Your task to perform on an android device: Open Wikipedia Image 0: 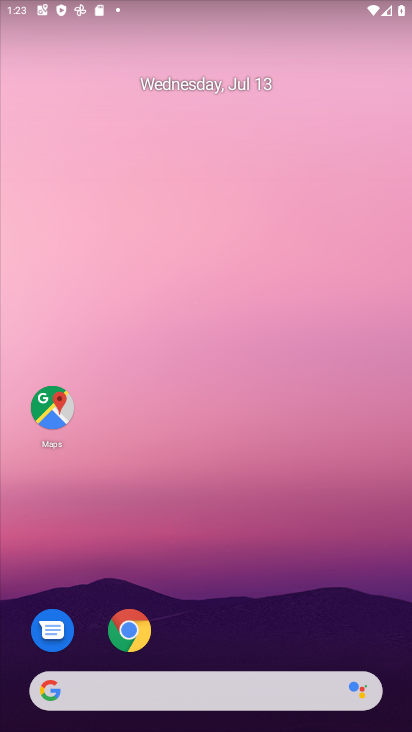
Step 0: drag from (393, 659) to (317, 45)
Your task to perform on an android device: Open Wikipedia Image 1: 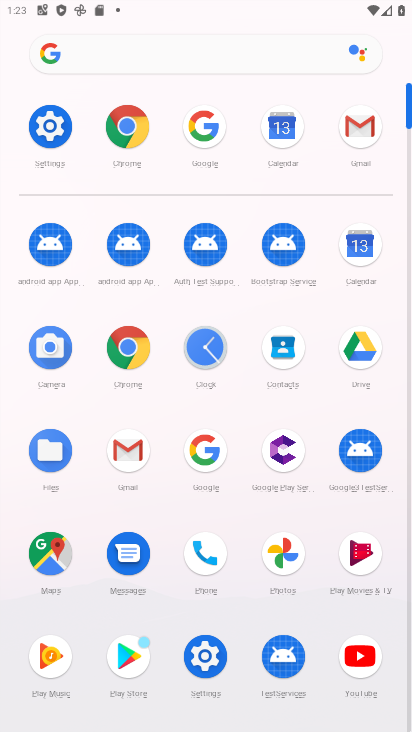
Step 1: click (206, 128)
Your task to perform on an android device: Open Wikipedia Image 2: 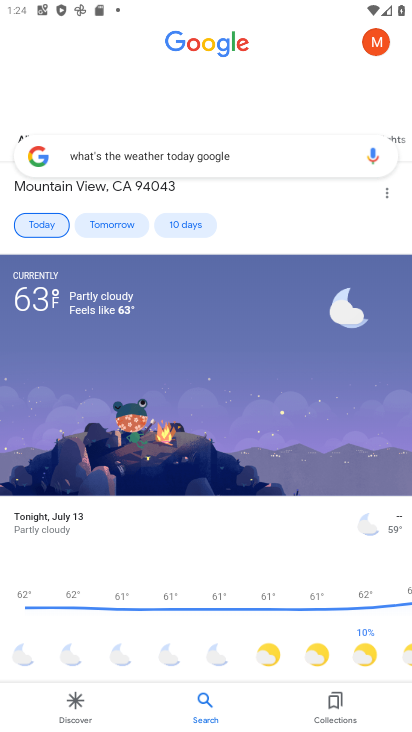
Step 2: press back button
Your task to perform on an android device: Open Wikipedia Image 3: 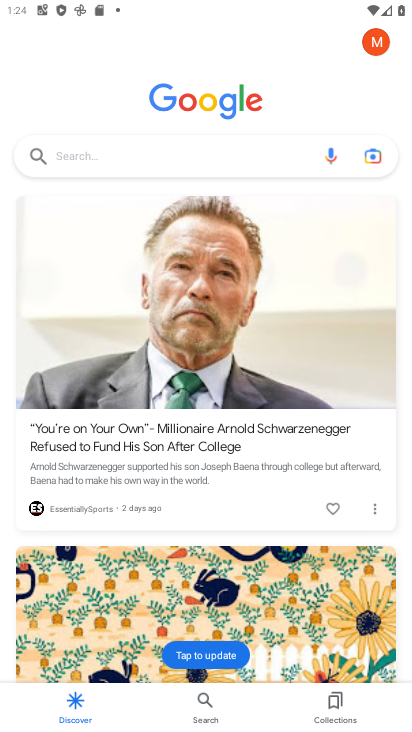
Step 3: click (151, 155)
Your task to perform on an android device: Open Wikipedia Image 4: 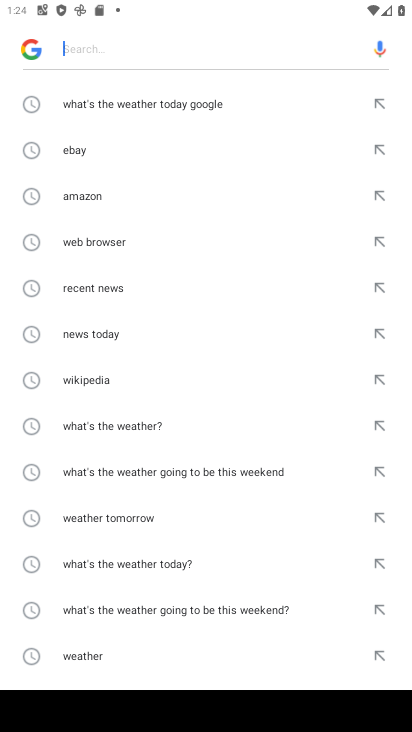
Step 4: click (93, 376)
Your task to perform on an android device: Open Wikipedia Image 5: 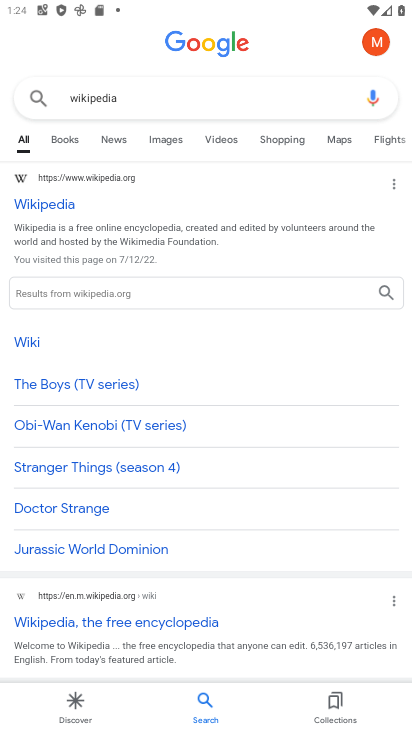
Step 5: task complete